Your task to perform on an android device: open a new tab in the chrome app Image 0: 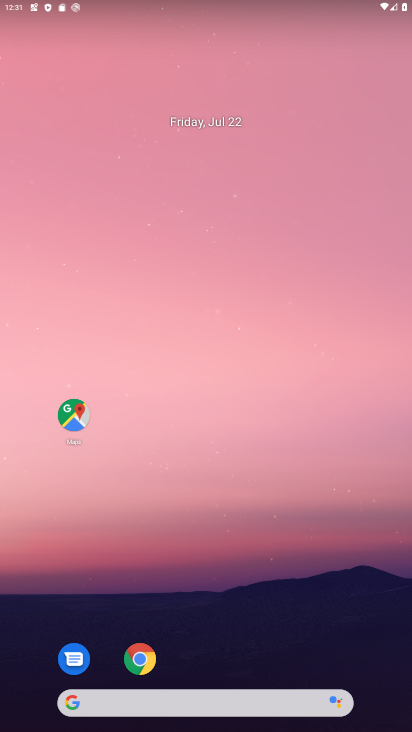
Step 0: click (144, 662)
Your task to perform on an android device: open a new tab in the chrome app Image 1: 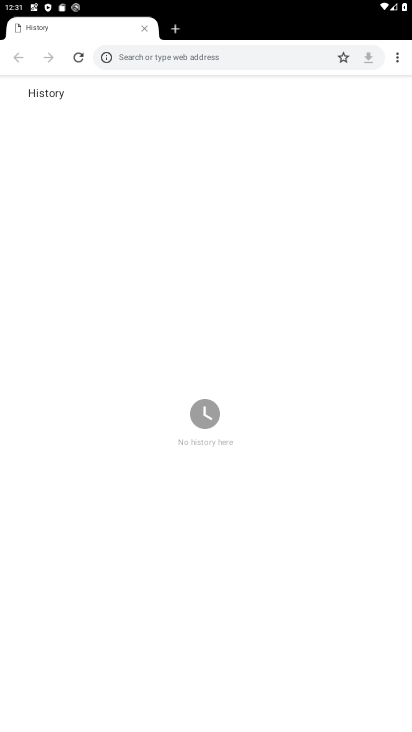
Step 1: click (395, 57)
Your task to perform on an android device: open a new tab in the chrome app Image 2: 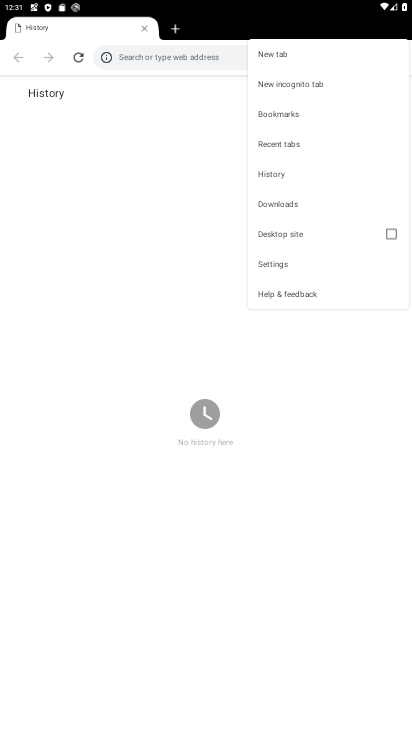
Step 2: click (300, 57)
Your task to perform on an android device: open a new tab in the chrome app Image 3: 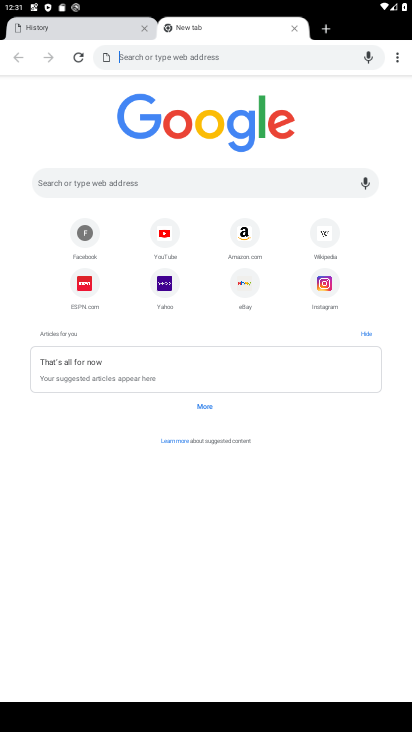
Step 3: task complete